Your task to perform on an android device: turn off airplane mode Image 0: 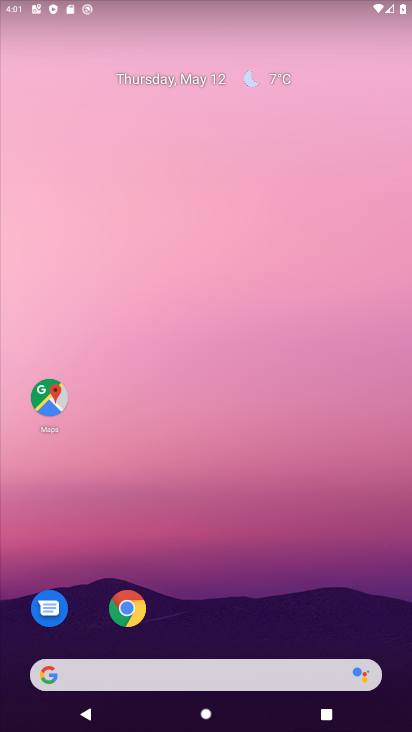
Step 0: drag from (322, 11) to (403, 701)
Your task to perform on an android device: turn off airplane mode Image 1: 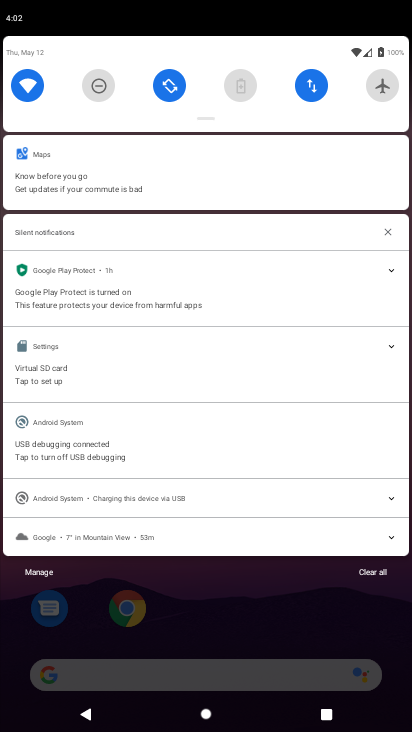
Step 1: task complete